Your task to perform on an android device: choose inbox layout in the gmail app Image 0: 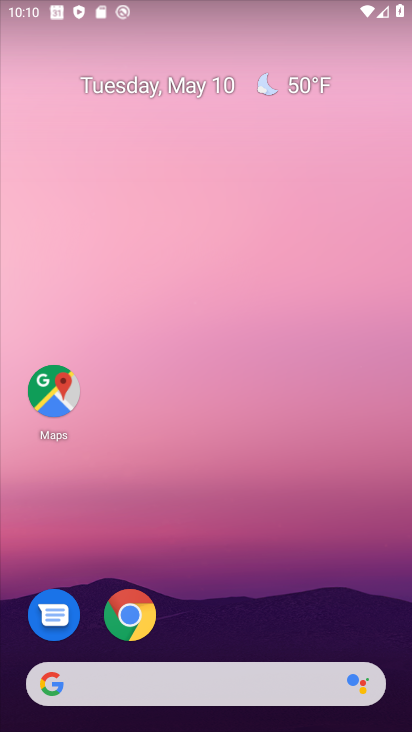
Step 0: drag from (222, 623) to (238, 2)
Your task to perform on an android device: choose inbox layout in the gmail app Image 1: 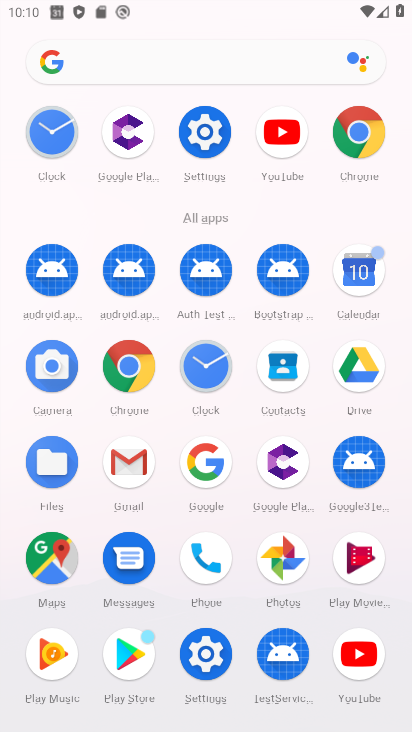
Step 1: click (125, 457)
Your task to perform on an android device: choose inbox layout in the gmail app Image 2: 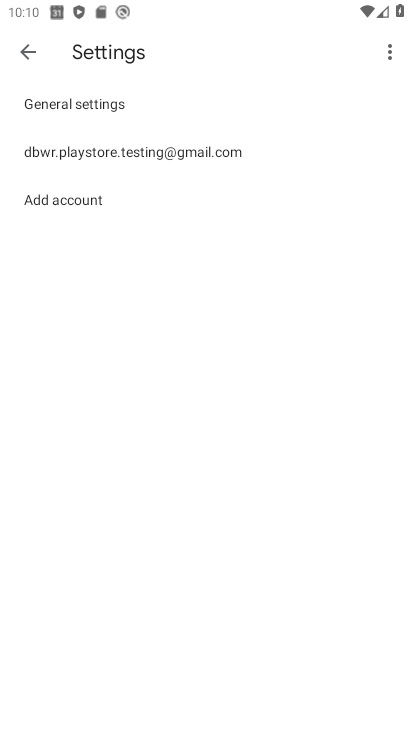
Step 2: click (242, 150)
Your task to perform on an android device: choose inbox layout in the gmail app Image 3: 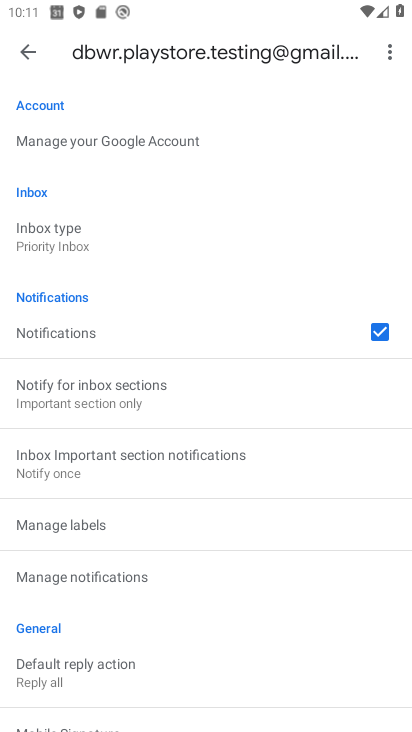
Step 3: click (95, 227)
Your task to perform on an android device: choose inbox layout in the gmail app Image 4: 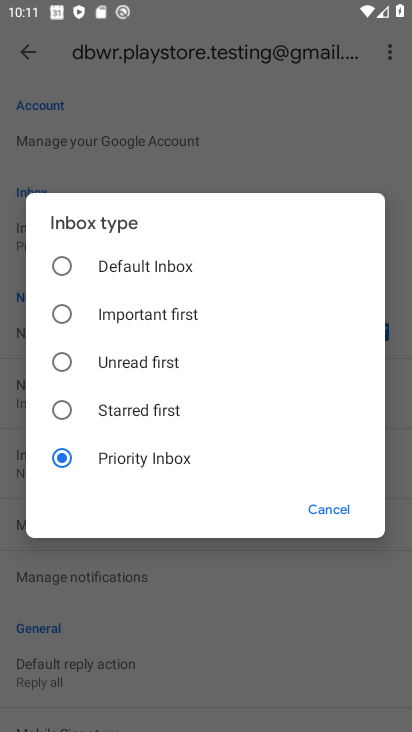
Step 4: click (67, 268)
Your task to perform on an android device: choose inbox layout in the gmail app Image 5: 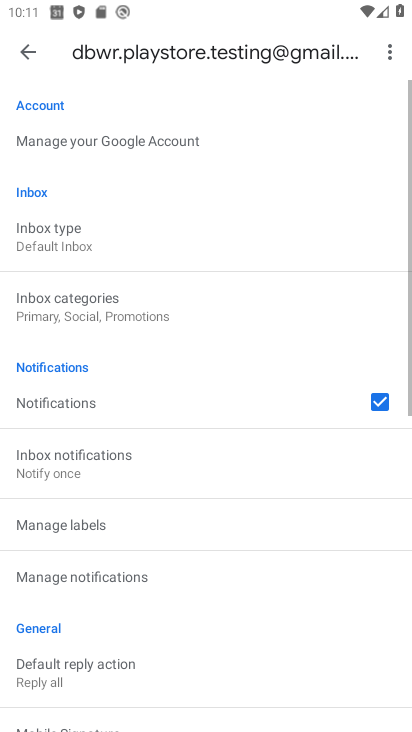
Step 5: task complete